Your task to perform on an android device: snooze an email in the gmail app Image 0: 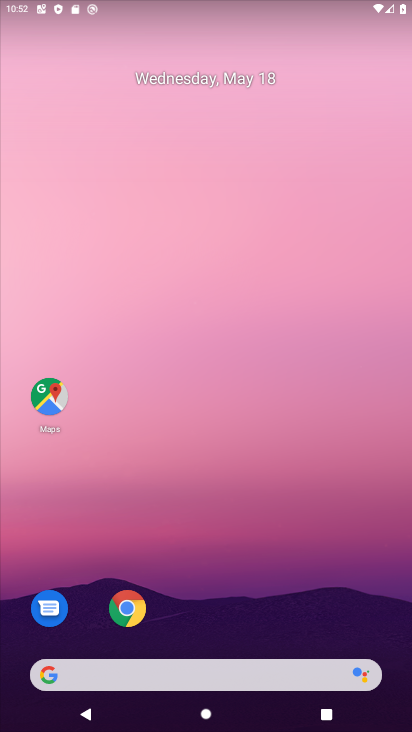
Step 0: drag from (273, 561) to (393, 97)
Your task to perform on an android device: snooze an email in the gmail app Image 1: 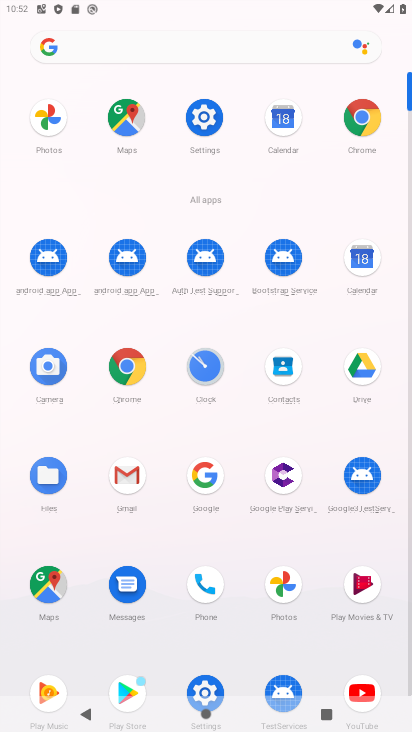
Step 1: drag from (292, 560) to (265, 4)
Your task to perform on an android device: snooze an email in the gmail app Image 2: 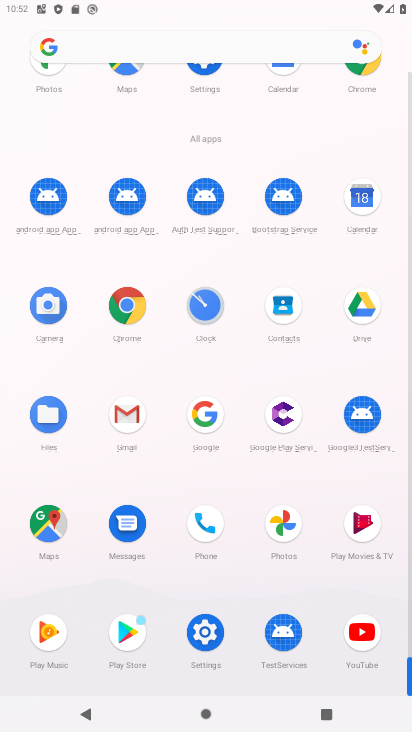
Step 2: drag from (224, 617) to (290, 62)
Your task to perform on an android device: snooze an email in the gmail app Image 3: 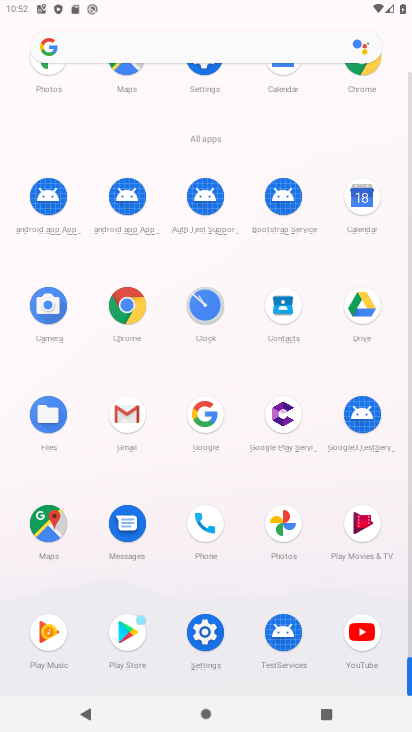
Step 3: click (131, 466)
Your task to perform on an android device: snooze an email in the gmail app Image 4: 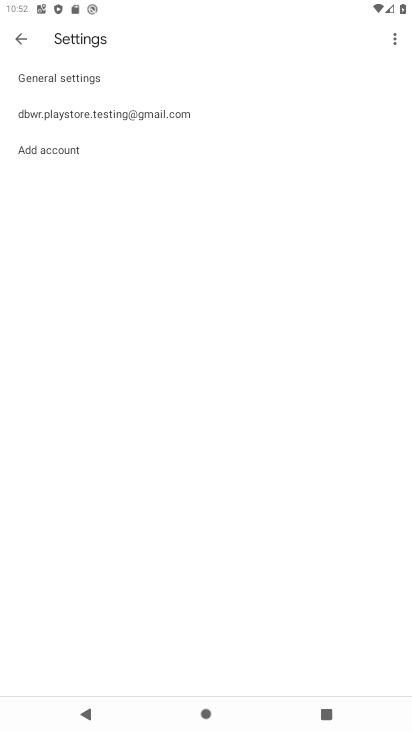
Step 4: click (100, 116)
Your task to perform on an android device: snooze an email in the gmail app Image 5: 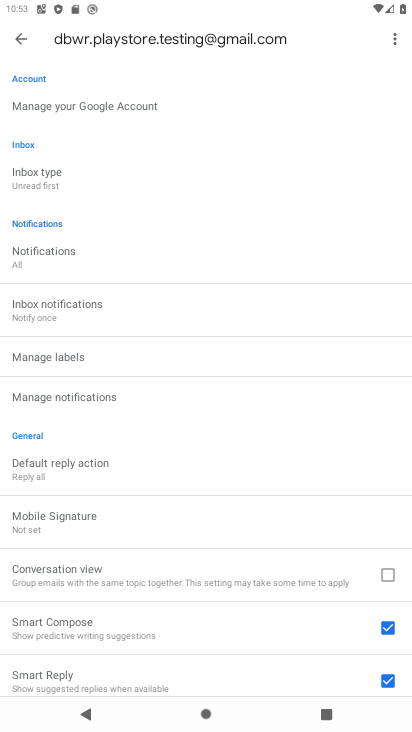
Step 5: click (39, 36)
Your task to perform on an android device: snooze an email in the gmail app Image 6: 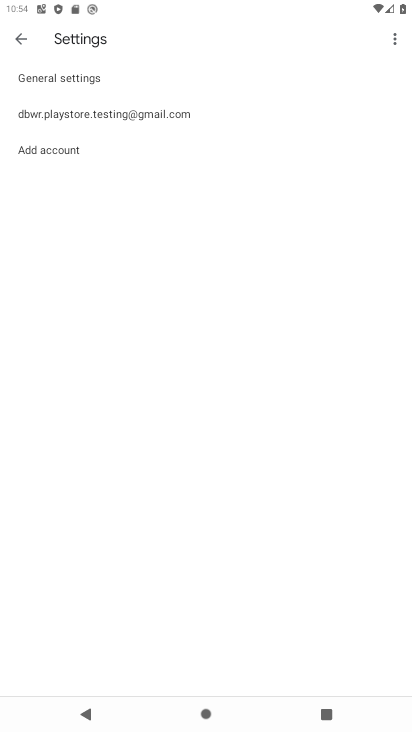
Step 6: click (19, 31)
Your task to perform on an android device: snooze an email in the gmail app Image 7: 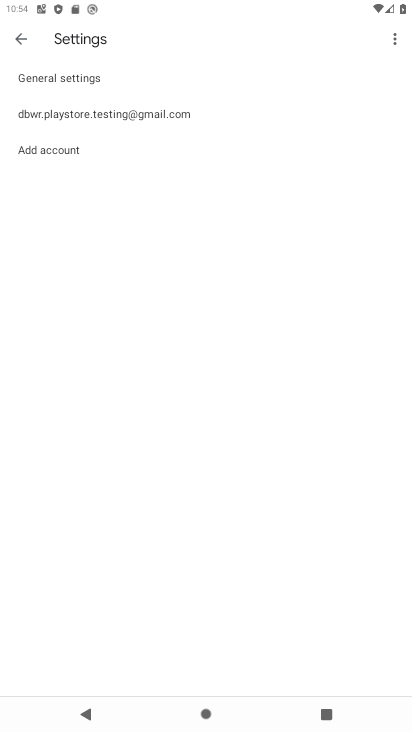
Step 7: click (14, 41)
Your task to perform on an android device: snooze an email in the gmail app Image 8: 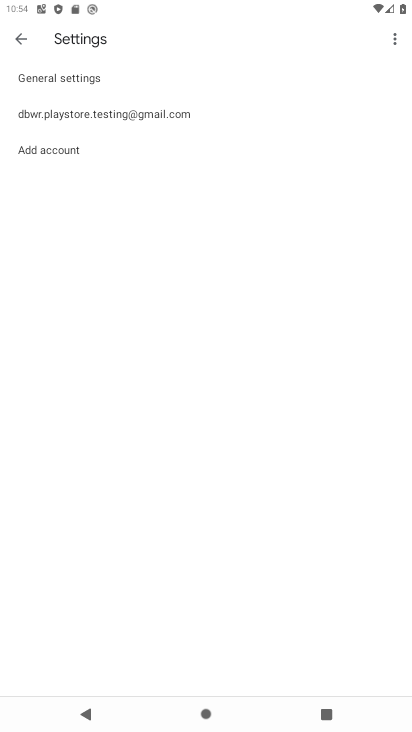
Step 8: click (12, 37)
Your task to perform on an android device: snooze an email in the gmail app Image 9: 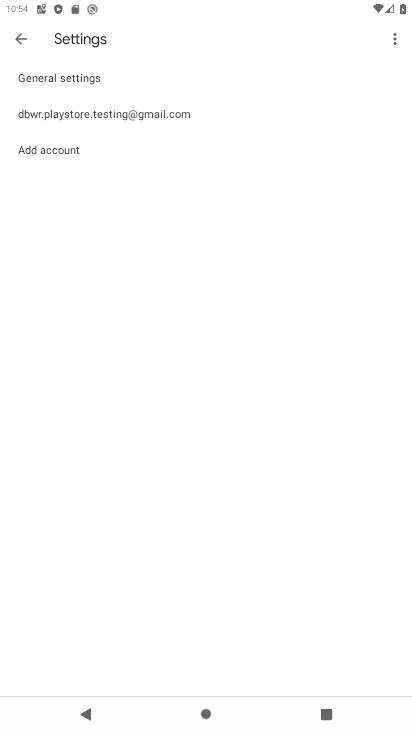
Step 9: click (13, 48)
Your task to perform on an android device: snooze an email in the gmail app Image 10: 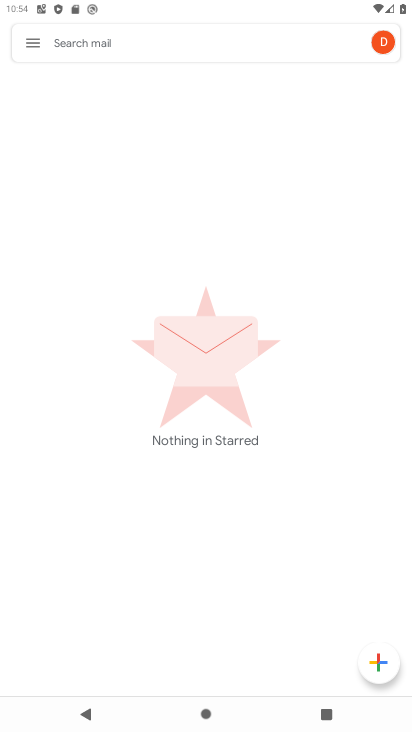
Step 10: click (28, 53)
Your task to perform on an android device: snooze an email in the gmail app Image 11: 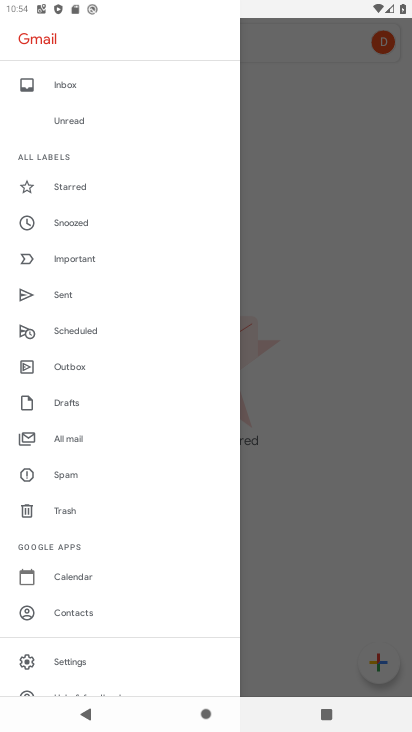
Step 11: click (91, 217)
Your task to perform on an android device: snooze an email in the gmail app Image 12: 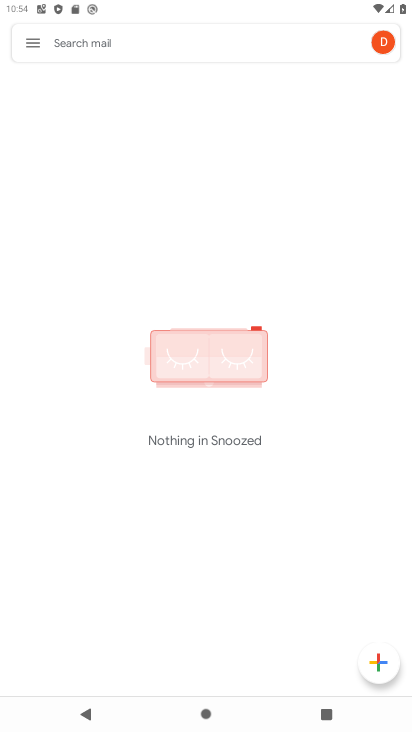
Step 12: task complete